Your task to perform on an android device: open wifi settings Image 0: 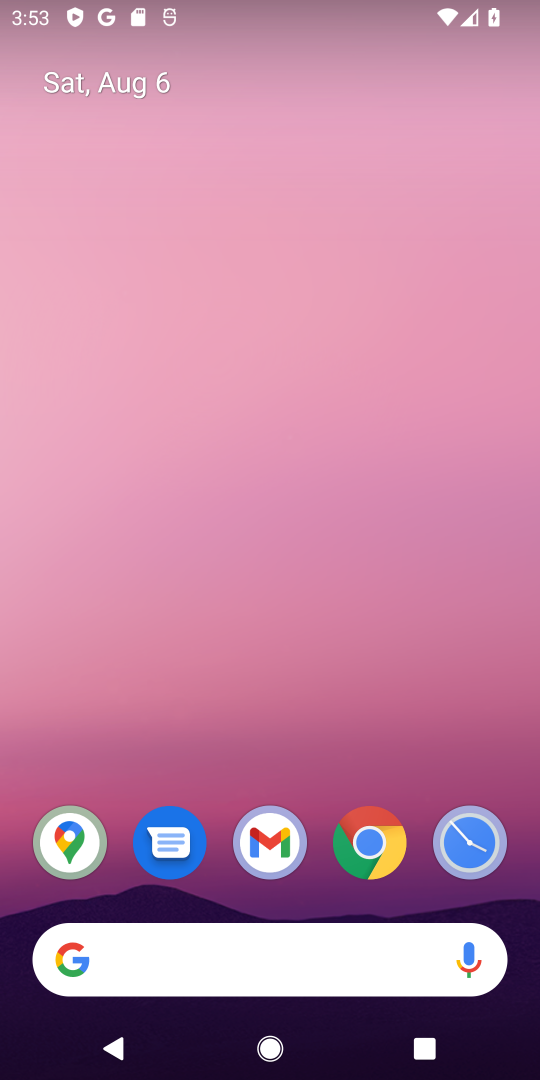
Step 0: drag from (518, 948) to (384, 314)
Your task to perform on an android device: open wifi settings Image 1: 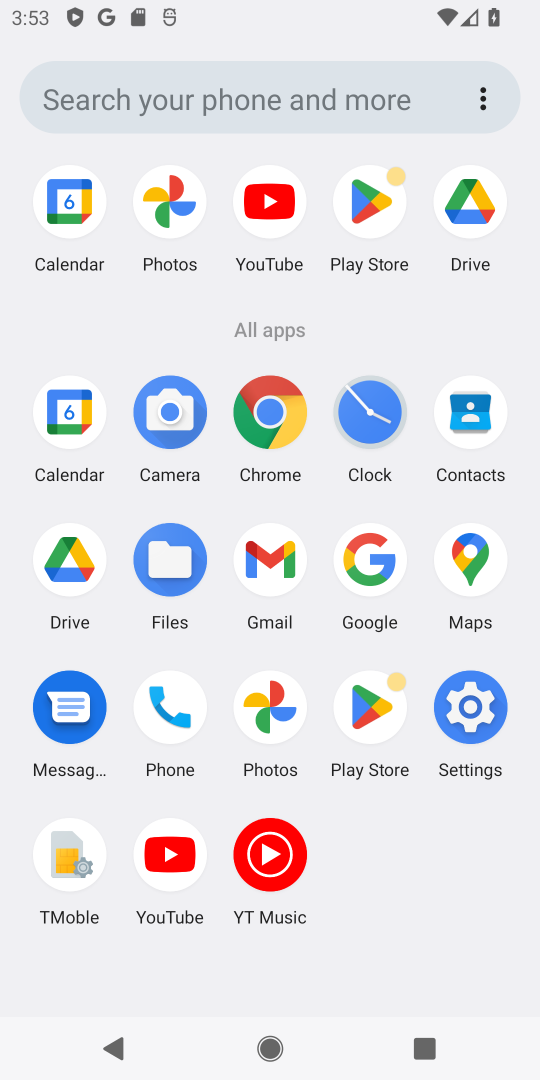
Step 1: click (471, 700)
Your task to perform on an android device: open wifi settings Image 2: 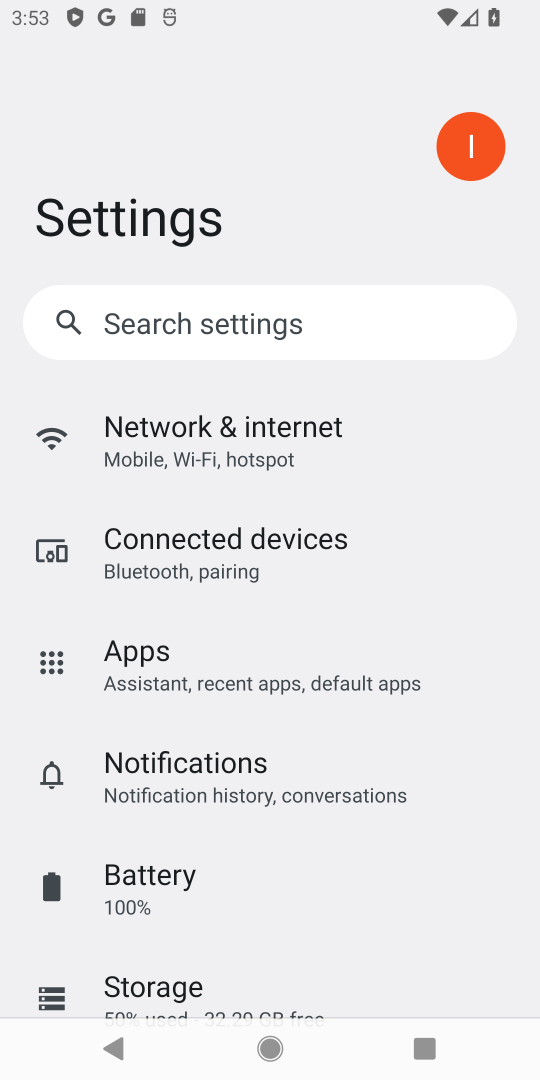
Step 2: click (162, 454)
Your task to perform on an android device: open wifi settings Image 3: 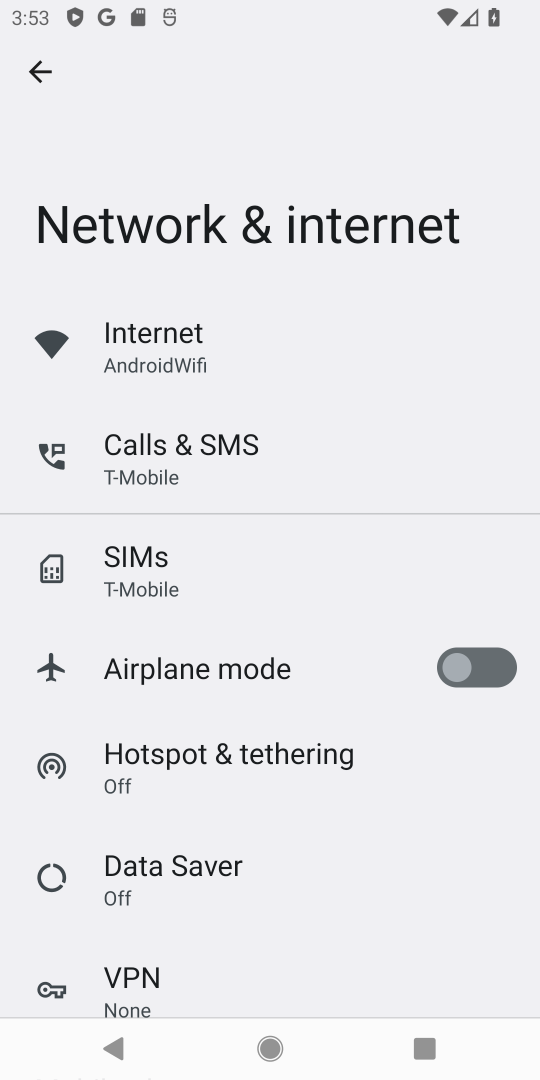
Step 3: click (96, 357)
Your task to perform on an android device: open wifi settings Image 4: 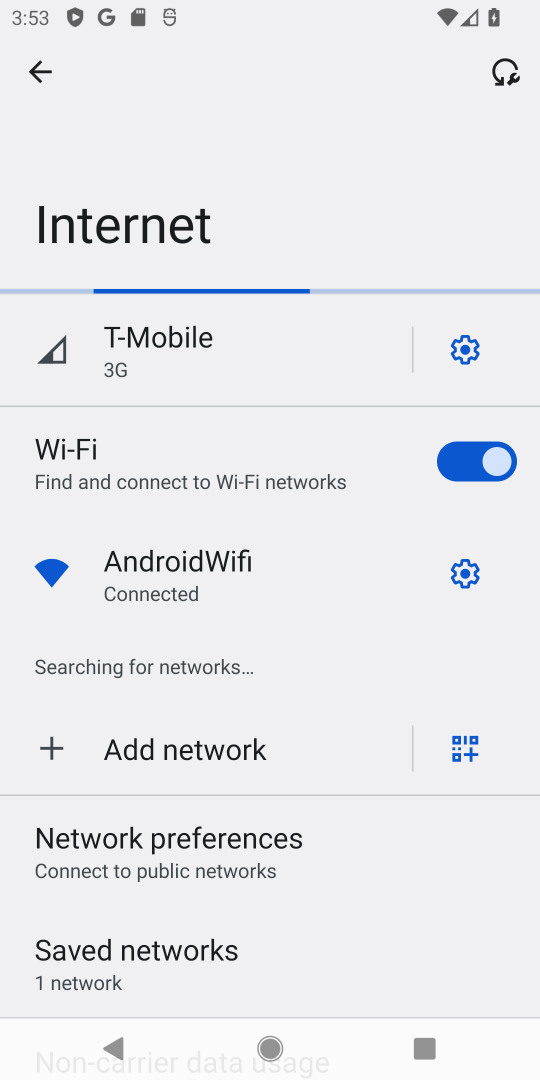
Step 4: click (459, 570)
Your task to perform on an android device: open wifi settings Image 5: 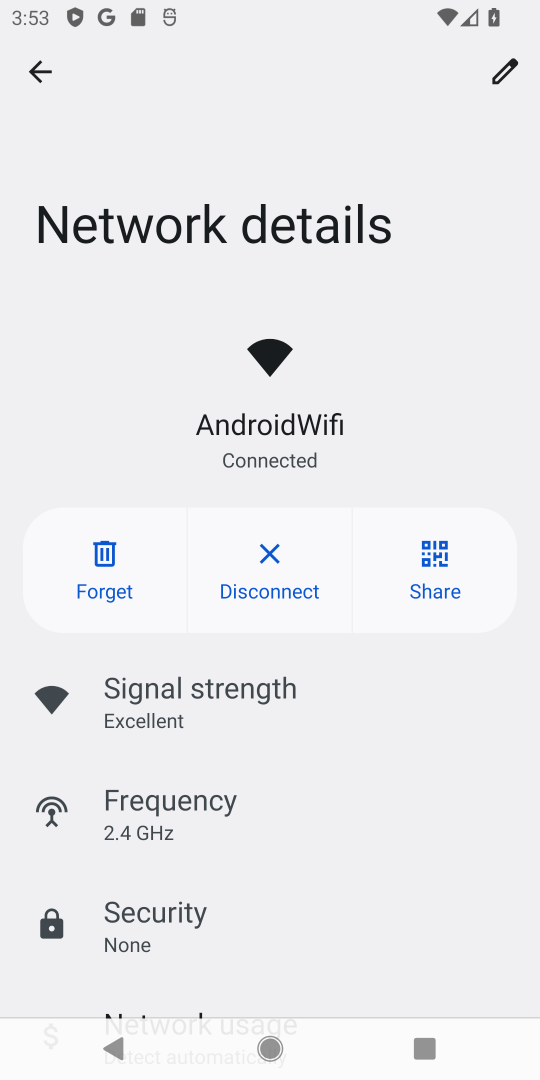
Step 5: task complete